Your task to perform on an android device: empty trash in the gmail app Image 0: 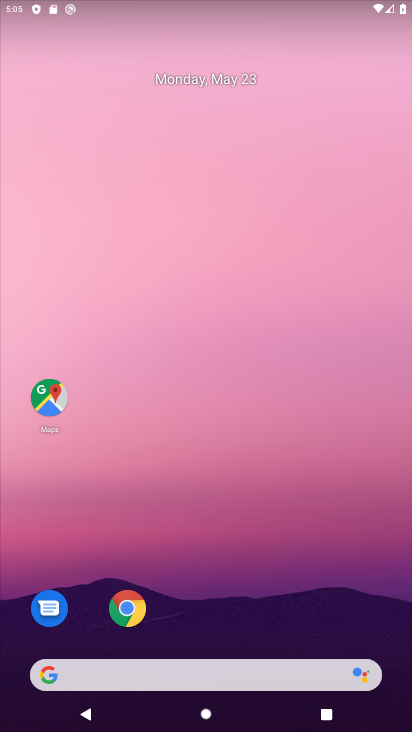
Step 0: click (137, 56)
Your task to perform on an android device: empty trash in the gmail app Image 1: 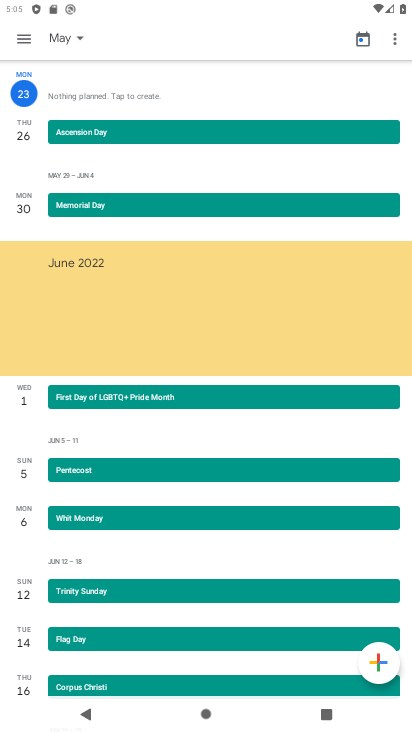
Step 1: press home button
Your task to perform on an android device: empty trash in the gmail app Image 2: 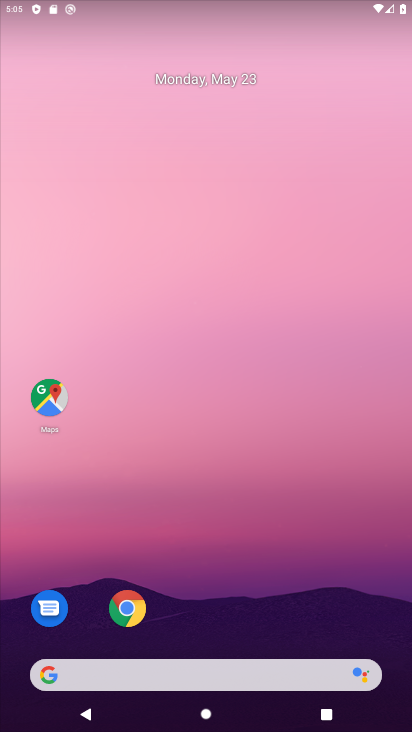
Step 2: drag from (186, 591) to (154, 172)
Your task to perform on an android device: empty trash in the gmail app Image 3: 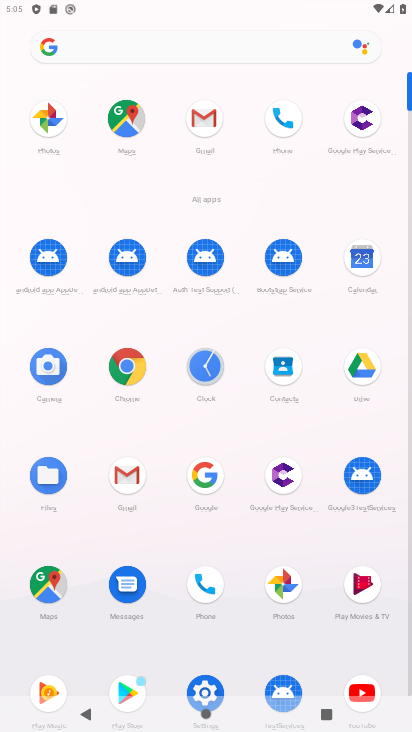
Step 3: click (203, 114)
Your task to perform on an android device: empty trash in the gmail app Image 4: 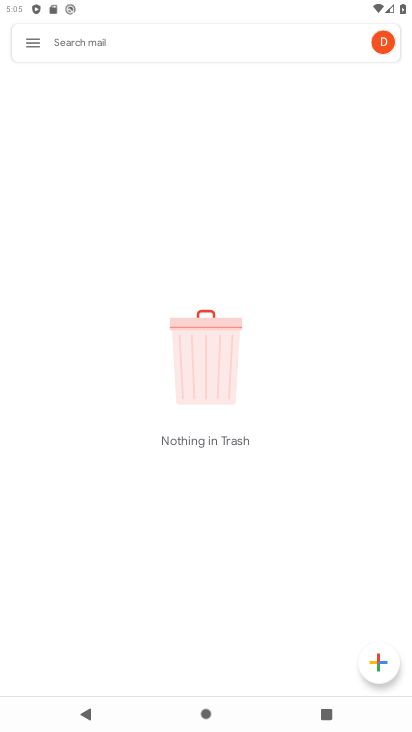
Step 4: click (37, 40)
Your task to perform on an android device: empty trash in the gmail app Image 5: 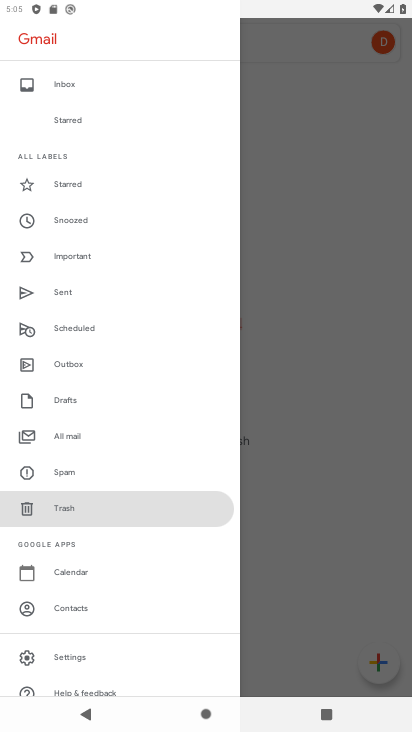
Step 5: click (89, 507)
Your task to perform on an android device: empty trash in the gmail app Image 6: 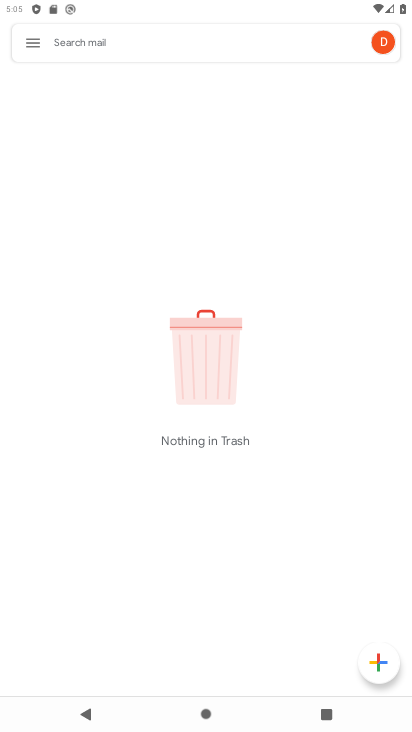
Step 6: task complete